Your task to perform on an android device: What does the iPhone 8 look like? Image 0: 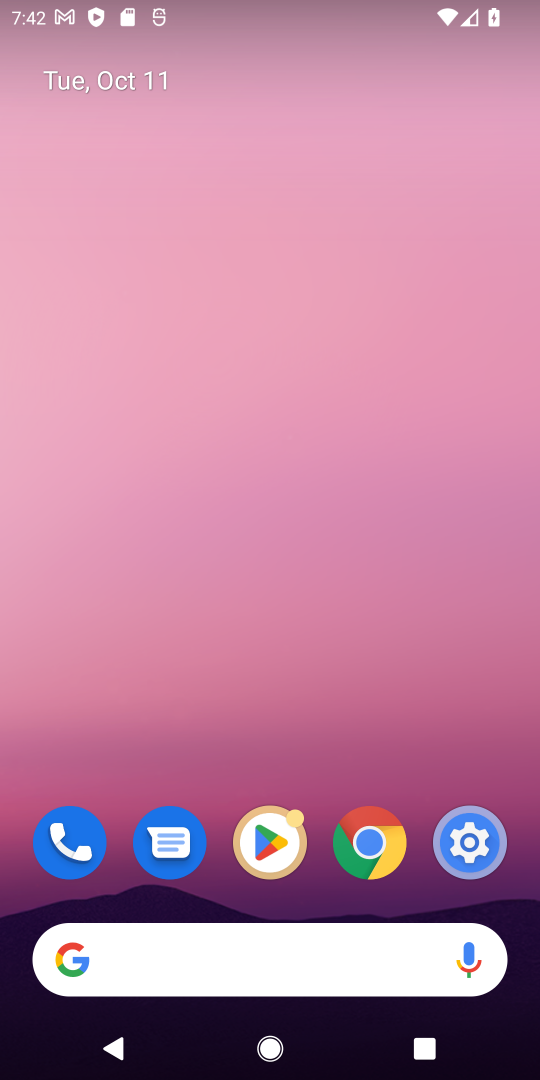
Step 0: click (387, 840)
Your task to perform on an android device: What does the iPhone 8 look like? Image 1: 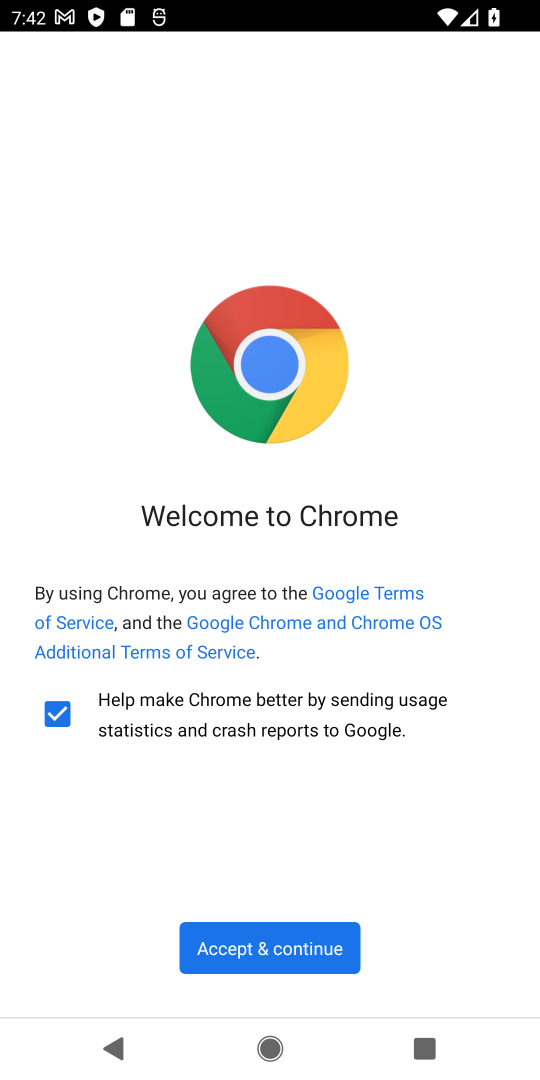
Step 1: click (332, 941)
Your task to perform on an android device: What does the iPhone 8 look like? Image 2: 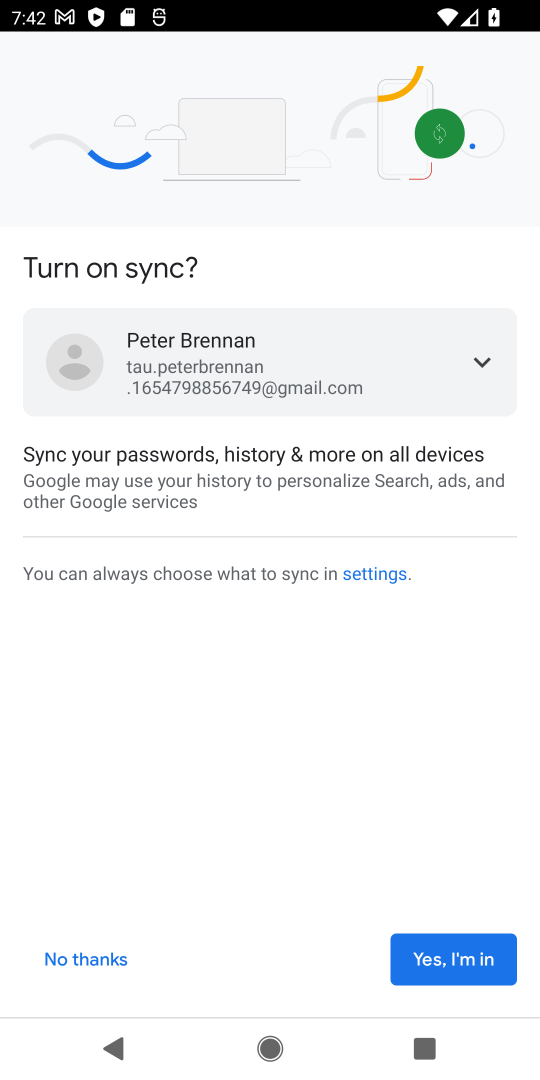
Step 2: click (463, 949)
Your task to perform on an android device: What does the iPhone 8 look like? Image 3: 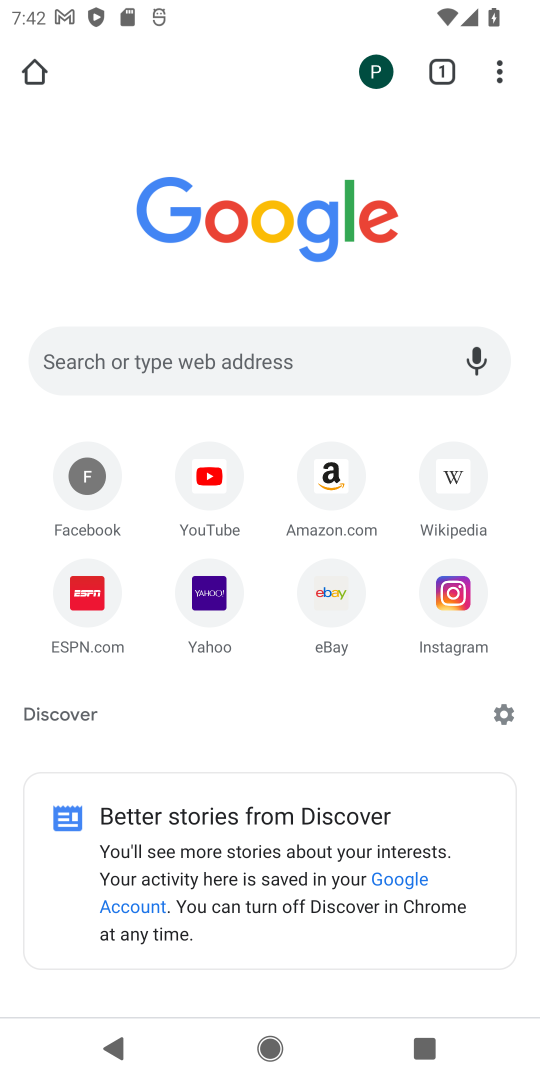
Step 3: click (192, 348)
Your task to perform on an android device: What does the iPhone 8 look like? Image 4: 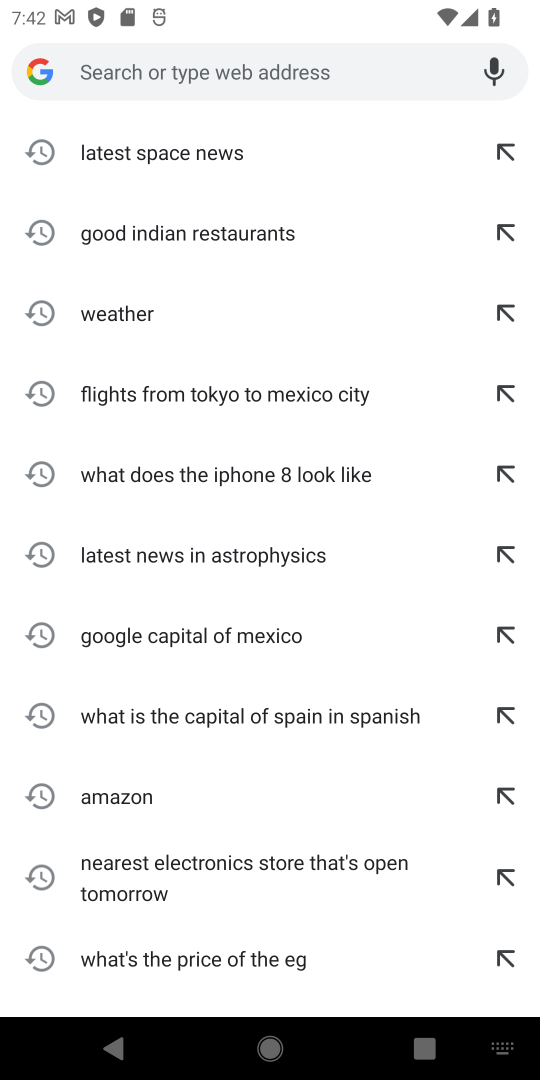
Step 4: type "what does the iphone 8 look like "
Your task to perform on an android device: What does the iPhone 8 look like? Image 5: 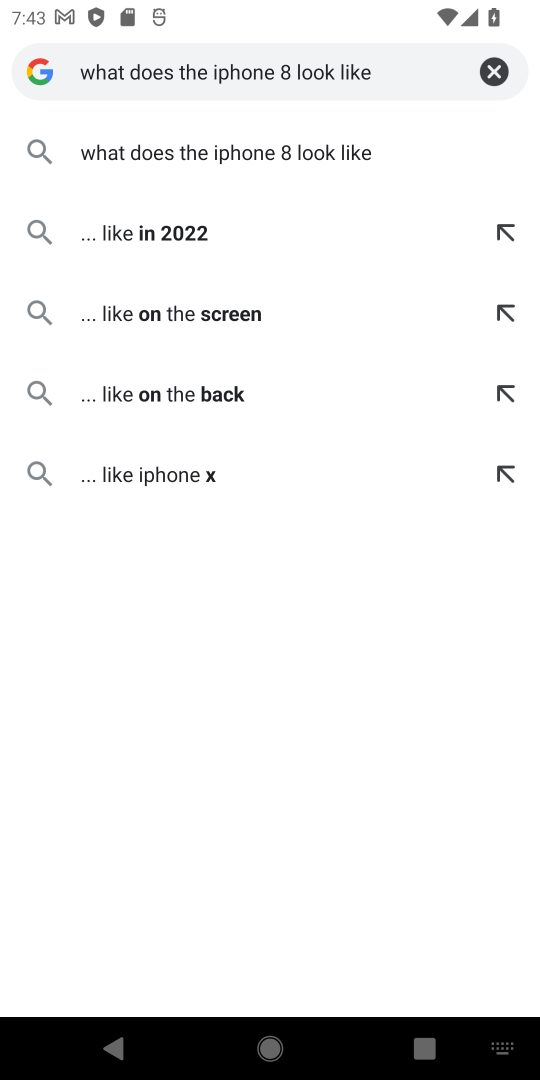
Step 5: click (236, 154)
Your task to perform on an android device: What does the iPhone 8 look like? Image 6: 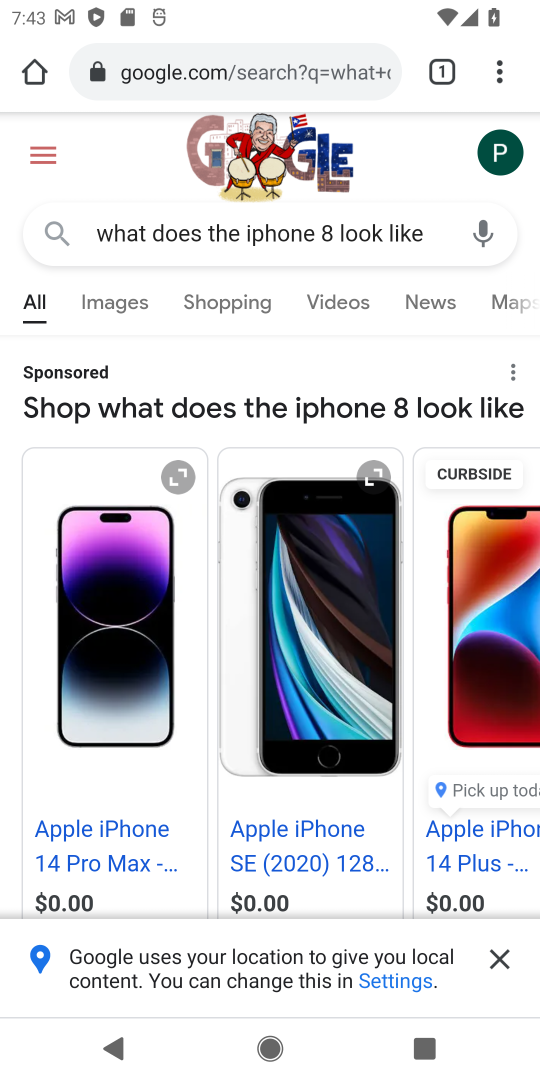
Step 6: click (488, 952)
Your task to perform on an android device: What does the iPhone 8 look like? Image 7: 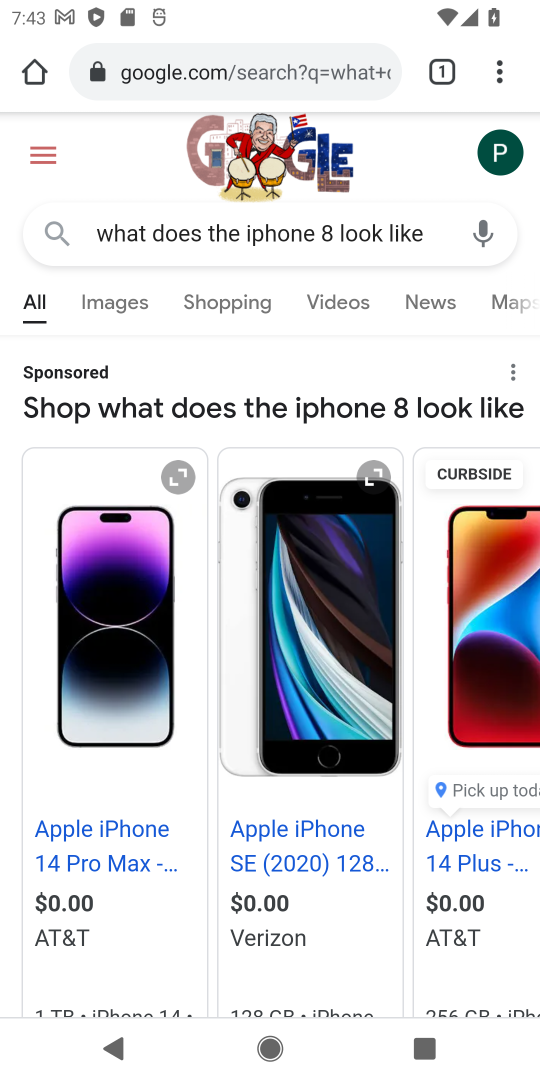
Step 7: drag from (107, 911) to (181, 467)
Your task to perform on an android device: What does the iPhone 8 look like? Image 8: 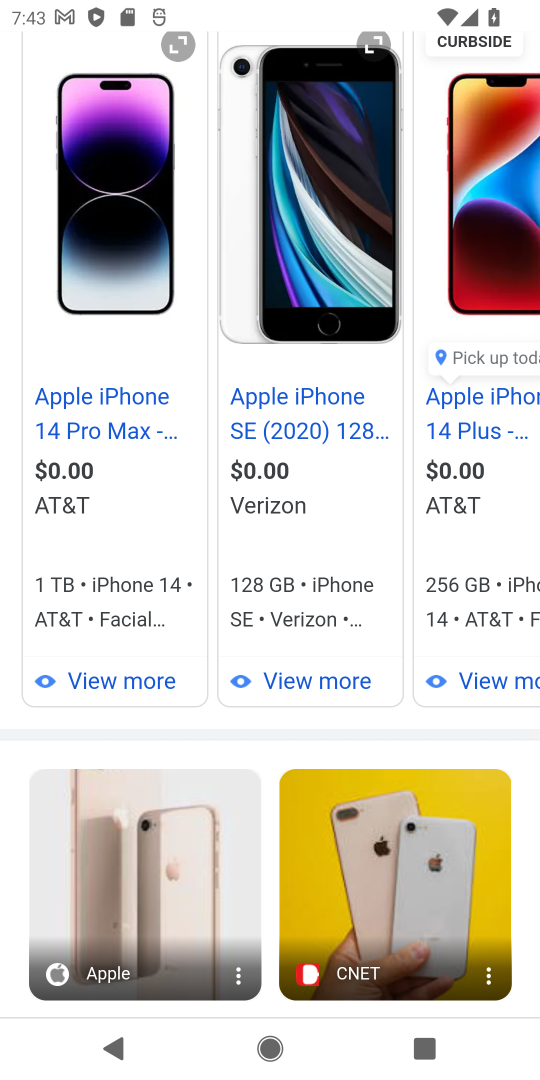
Step 8: drag from (126, 729) to (257, 333)
Your task to perform on an android device: What does the iPhone 8 look like? Image 9: 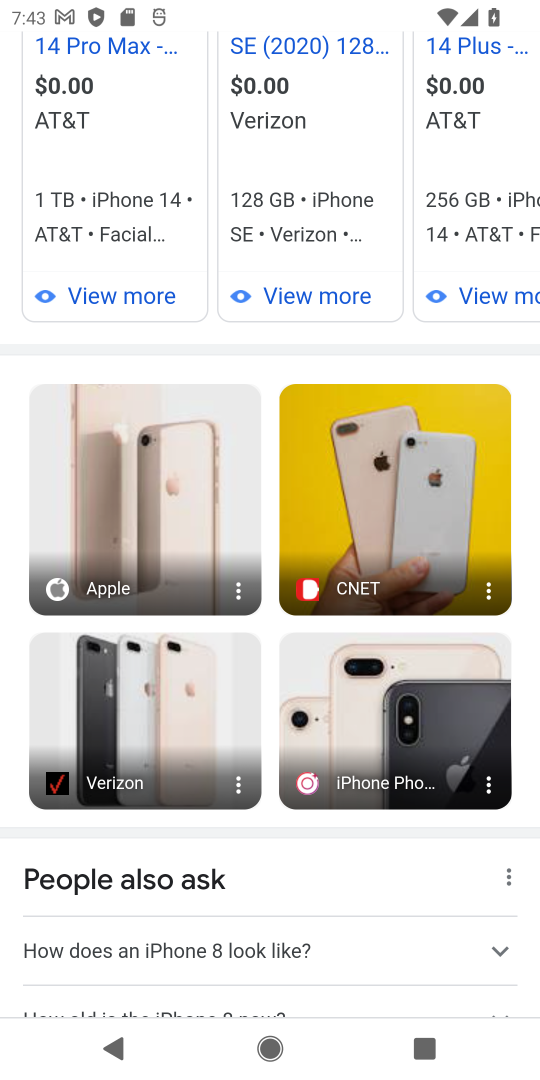
Step 9: drag from (355, 717) to (418, 383)
Your task to perform on an android device: What does the iPhone 8 look like? Image 10: 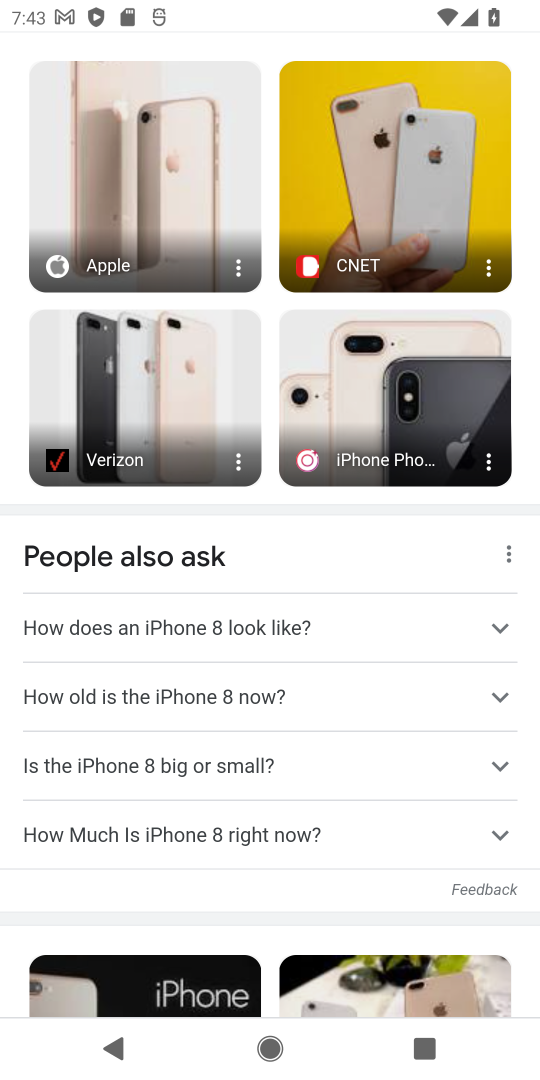
Step 10: click (224, 633)
Your task to perform on an android device: What does the iPhone 8 look like? Image 11: 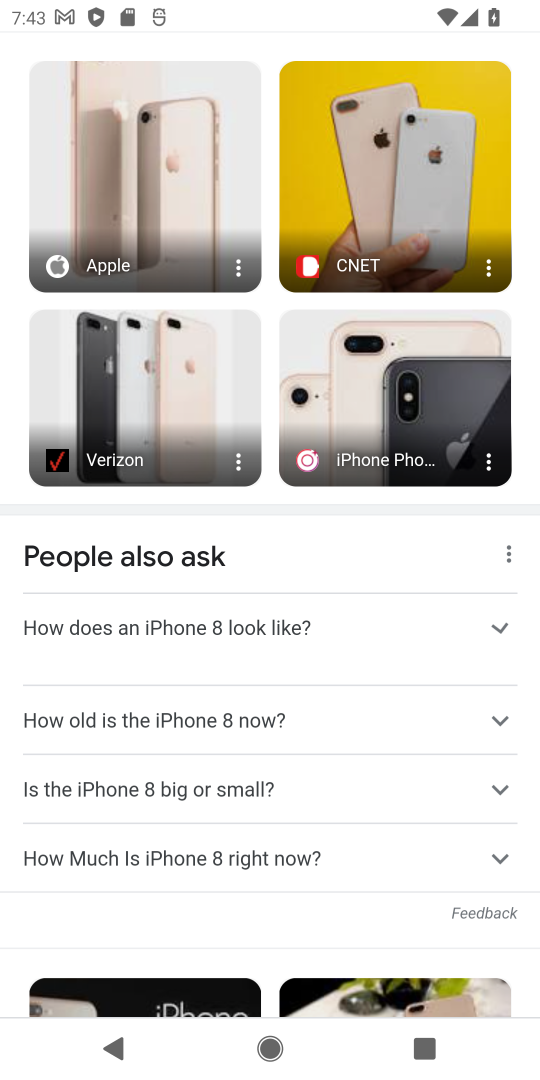
Step 11: click (184, 630)
Your task to perform on an android device: What does the iPhone 8 look like? Image 12: 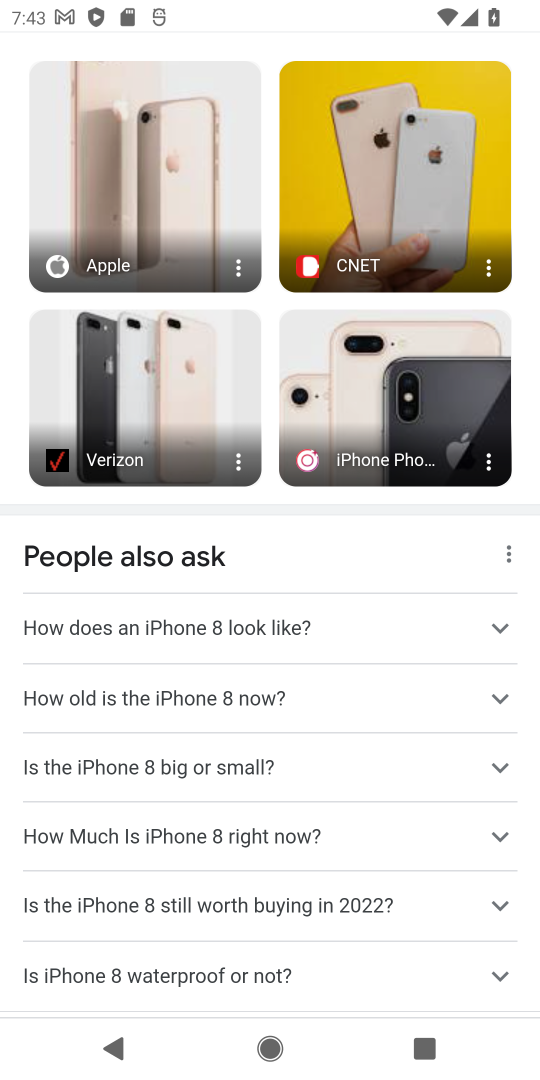
Step 12: drag from (201, 801) to (240, 177)
Your task to perform on an android device: What does the iPhone 8 look like? Image 13: 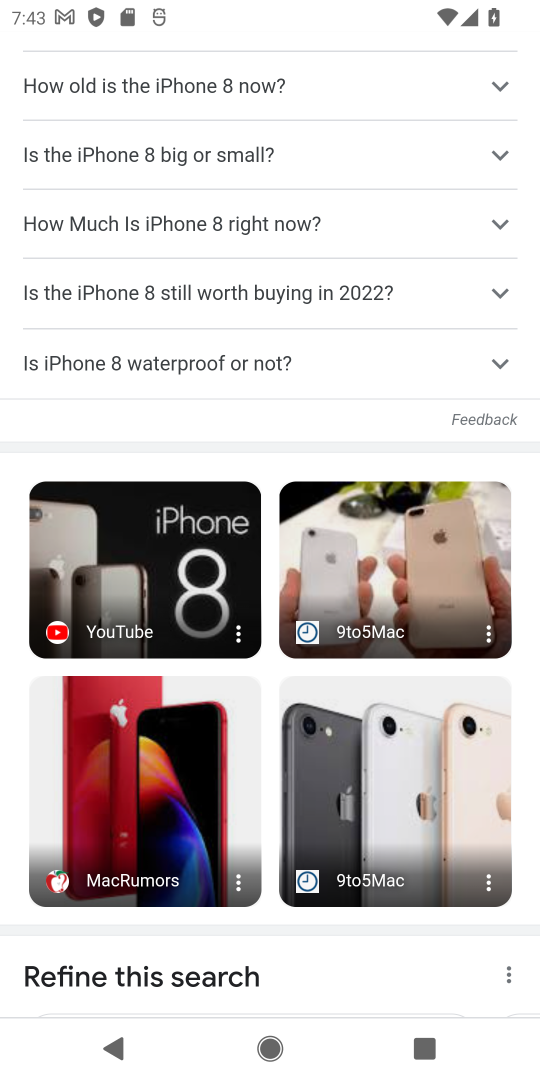
Step 13: drag from (136, 740) to (204, 388)
Your task to perform on an android device: What does the iPhone 8 look like? Image 14: 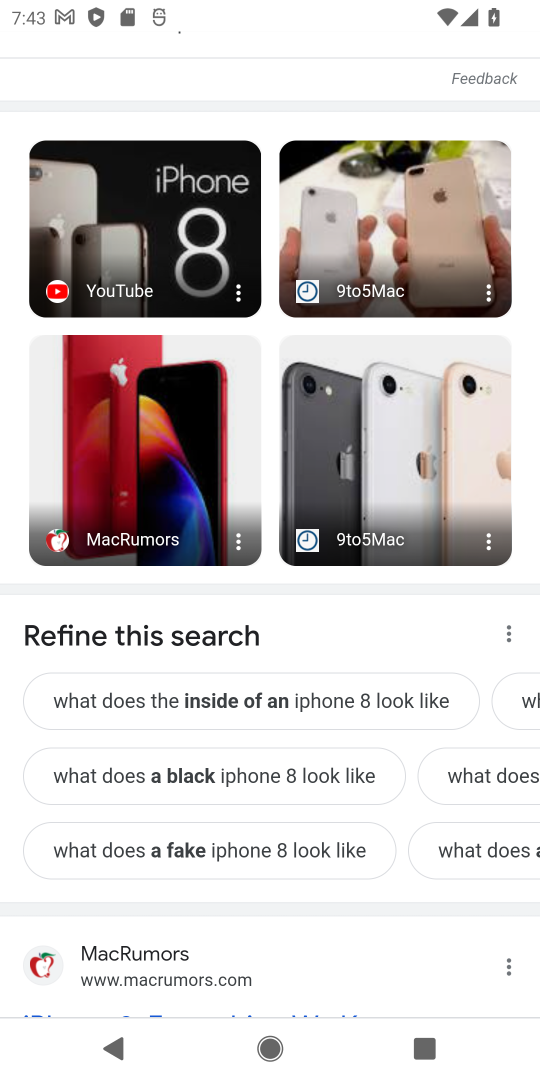
Step 14: drag from (113, 842) to (194, 466)
Your task to perform on an android device: What does the iPhone 8 look like? Image 15: 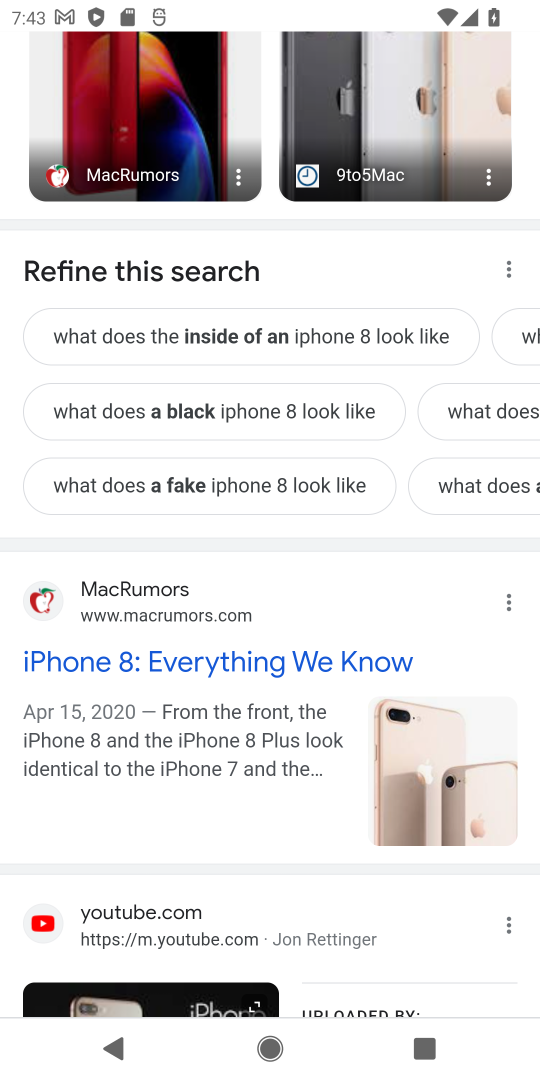
Step 15: drag from (114, 779) to (309, 76)
Your task to perform on an android device: What does the iPhone 8 look like? Image 16: 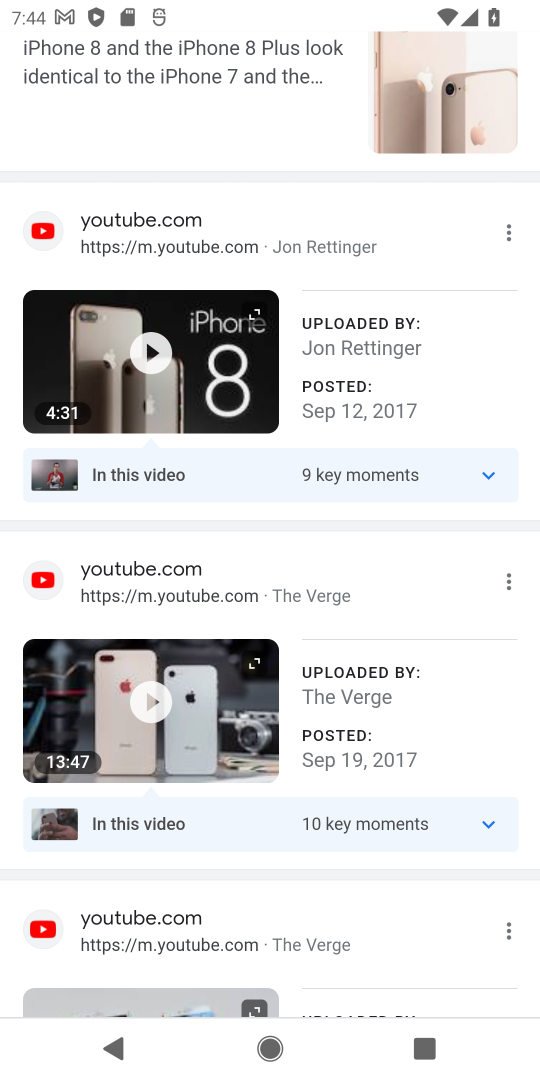
Step 16: drag from (444, 784) to (477, 329)
Your task to perform on an android device: What does the iPhone 8 look like? Image 17: 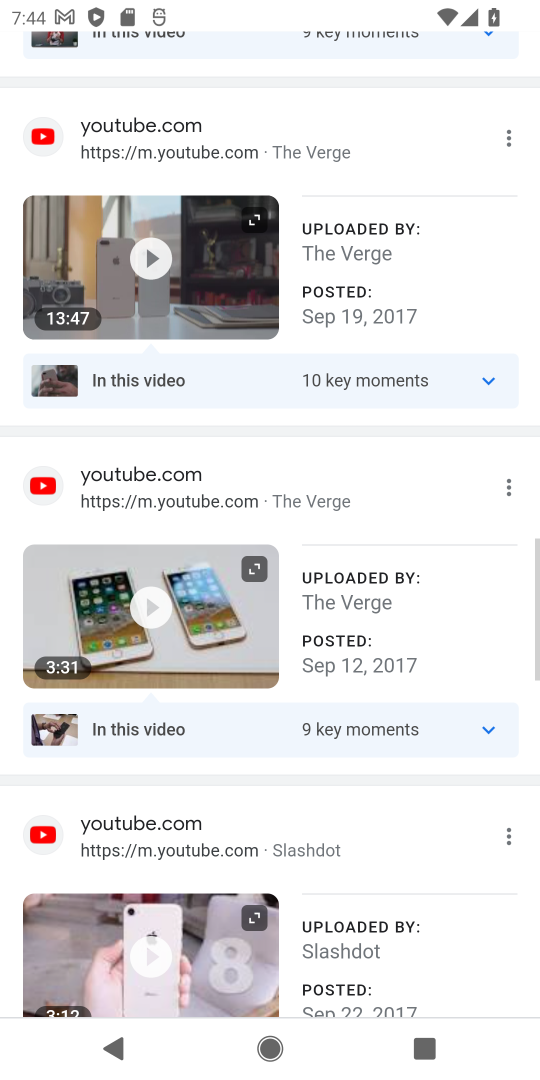
Step 17: drag from (417, 772) to (456, 390)
Your task to perform on an android device: What does the iPhone 8 look like? Image 18: 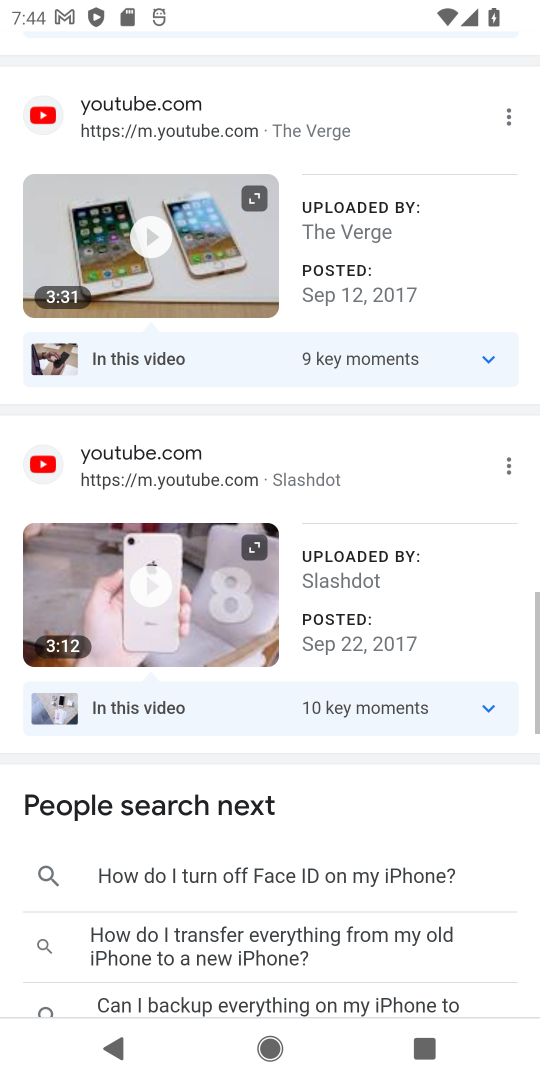
Step 18: drag from (344, 768) to (391, 182)
Your task to perform on an android device: What does the iPhone 8 look like? Image 19: 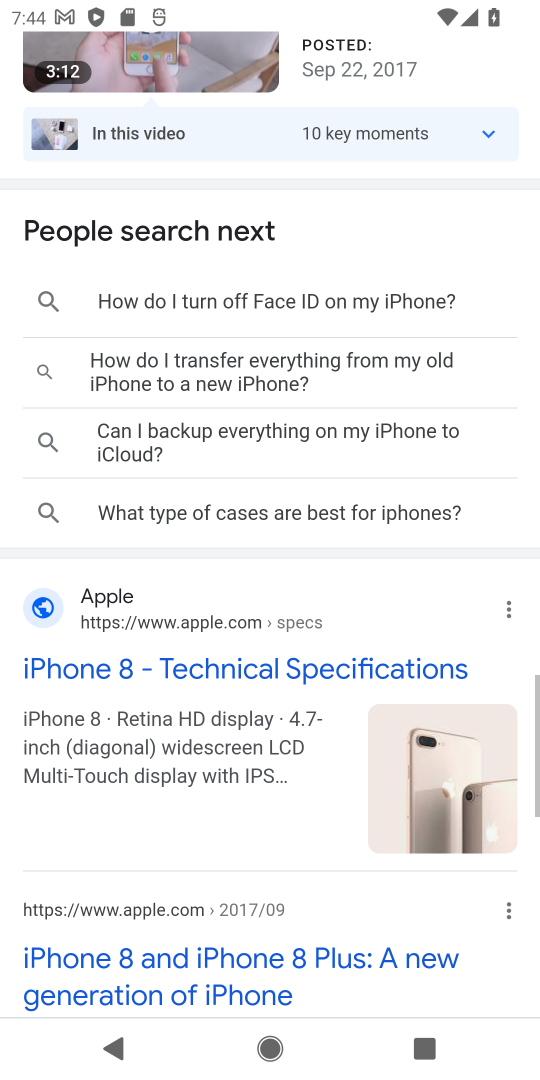
Step 19: drag from (349, 773) to (335, 252)
Your task to perform on an android device: What does the iPhone 8 look like? Image 20: 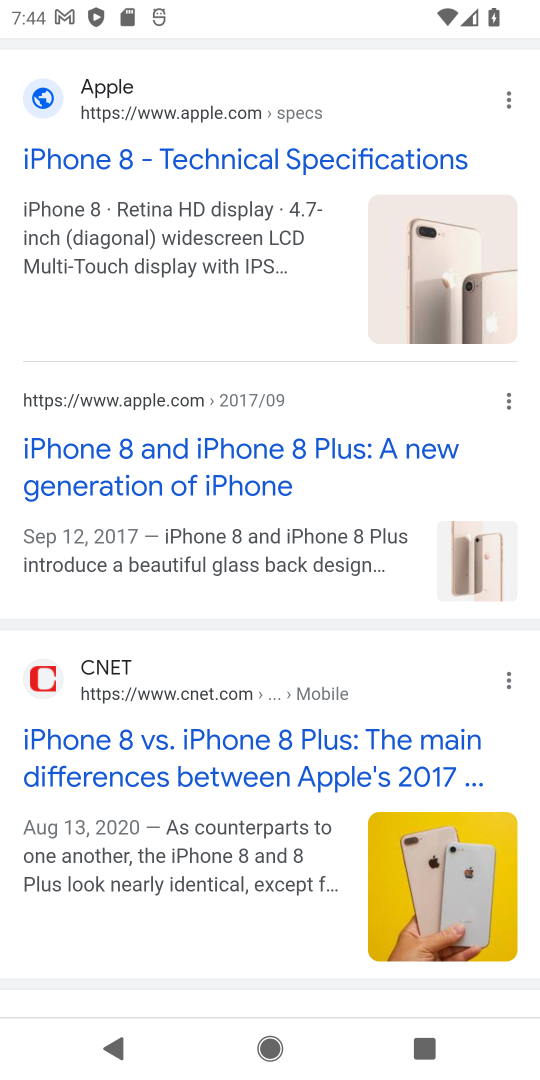
Step 20: drag from (106, 709) to (102, 225)
Your task to perform on an android device: What does the iPhone 8 look like? Image 21: 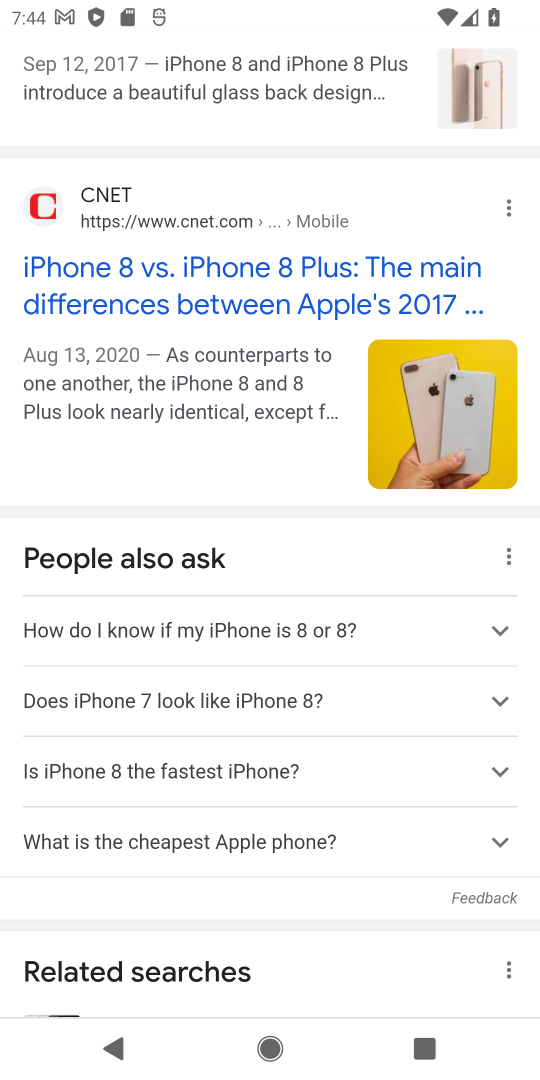
Step 21: drag from (202, 715) to (181, 274)
Your task to perform on an android device: What does the iPhone 8 look like? Image 22: 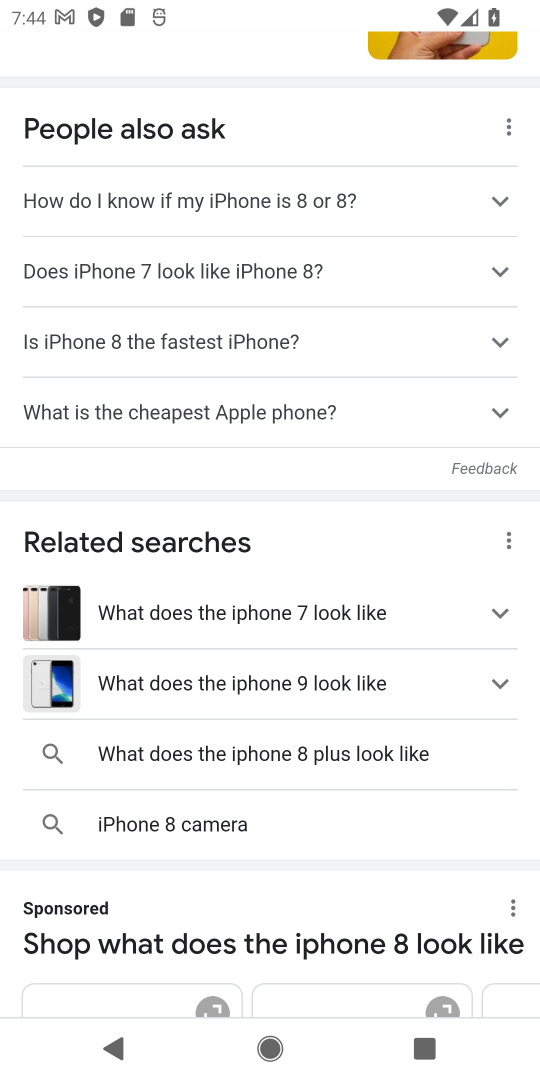
Step 22: drag from (234, 695) to (304, 274)
Your task to perform on an android device: What does the iPhone 8 look like? Image 23: 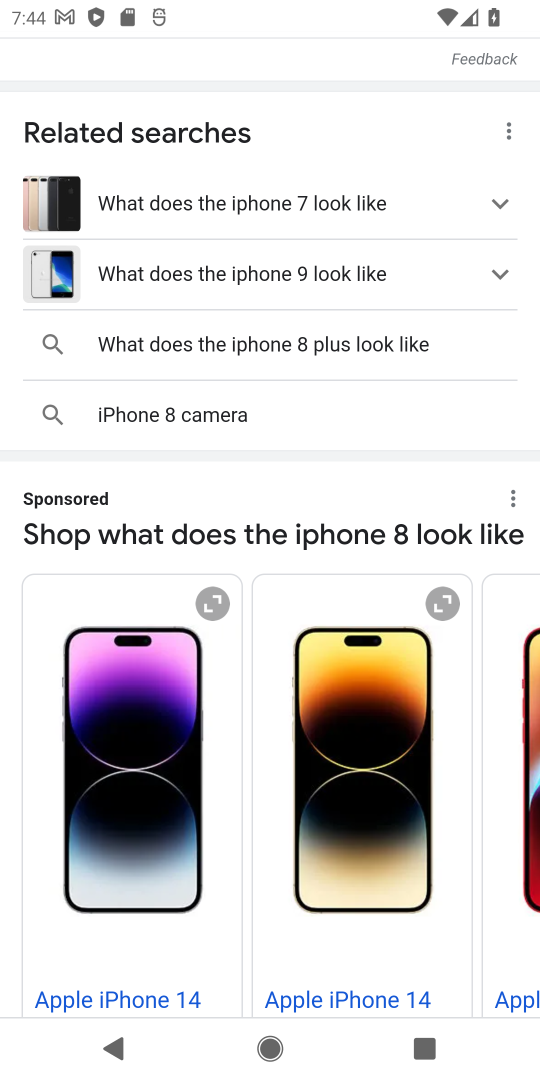
Step 23: drag from (134, 782) to (164, 312)
Your task to perform on an android device: What does the iPhone 8 look like? Image 24: 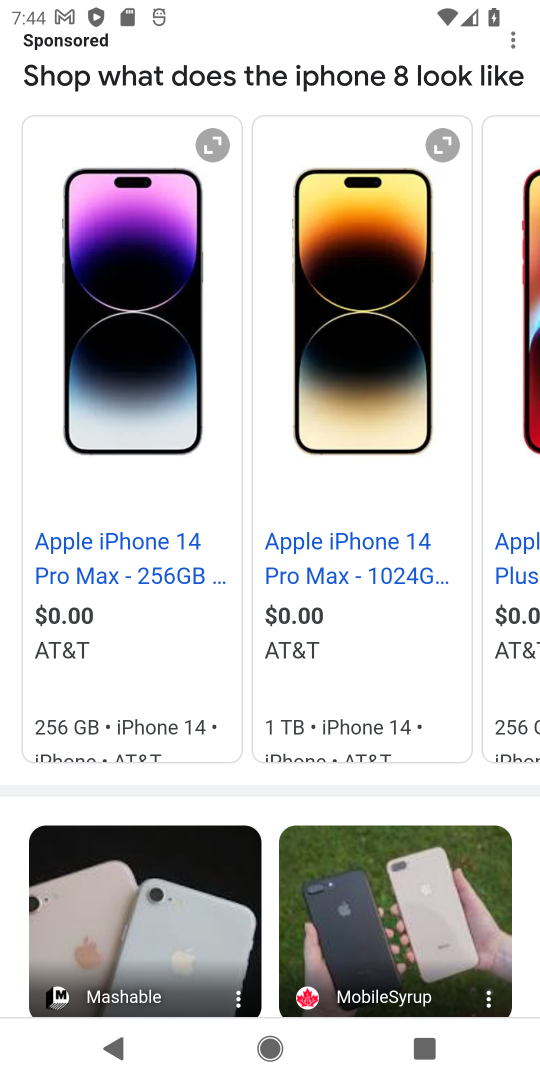
Step 24: drag from (166, 294) to (204, 1033)
Your task to perform on an android device: What does the iPhone 8 look like? Image 25: 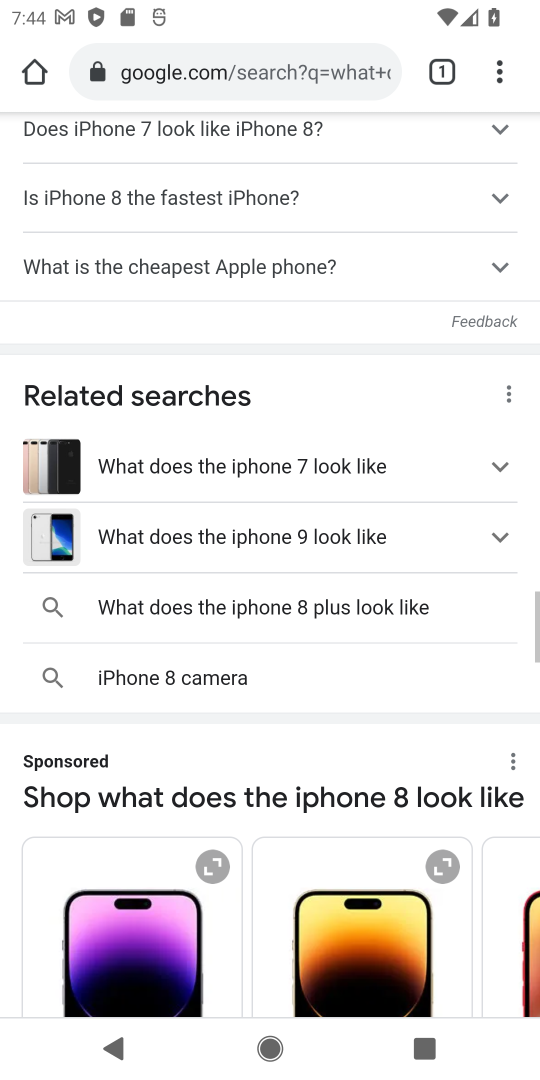
Step 25: drag from (284, 478) to (237, 1042)
Your task to perform on an android device: What does the iPhone 8 look like? Image 26: 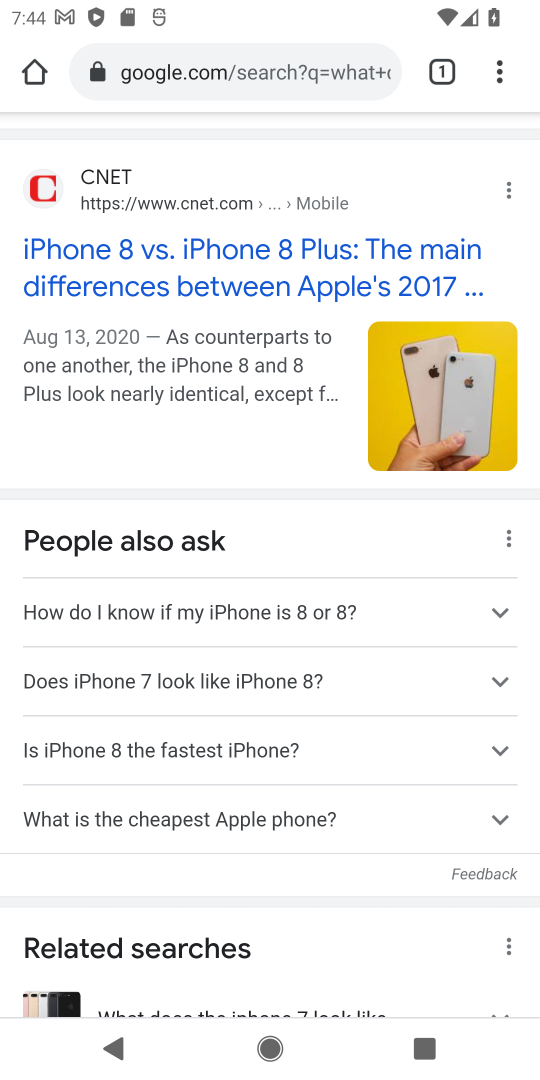
Step 26: drag from (231, 302) to (238, 1033)
Your task to perform on an android device: What does the iPhone 8 look like? Image 27: 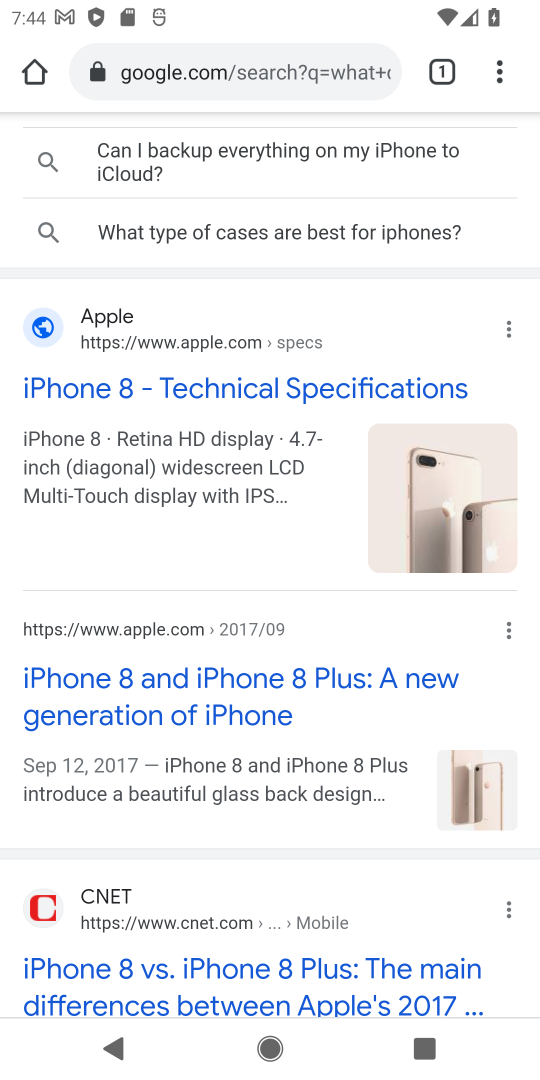
Step 27: drag from (166, 844) to (4, 1073)
Your task to perform on an android device: What does the iPhone 8 look like? Image 28: 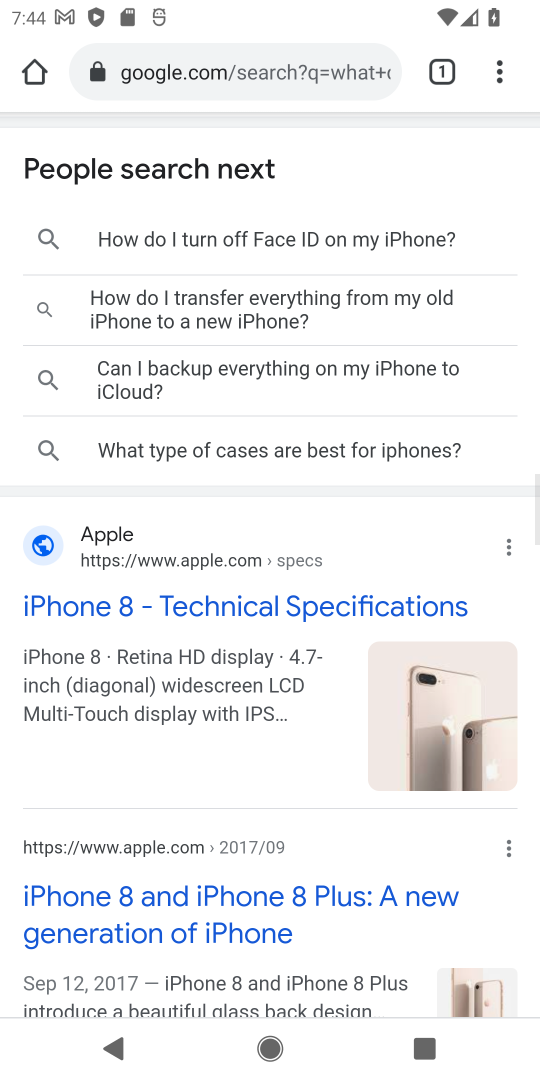
Step 28: drag from (190, 443) to (201, 938)
Your task to perform on an android device: What does the iPhone 8 look like? Image 29: 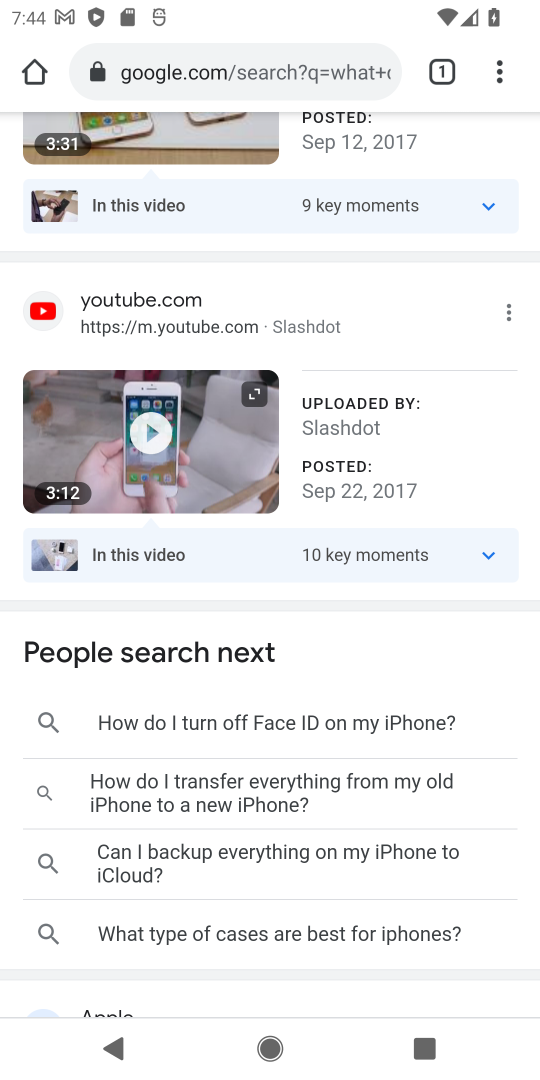
Step 29: drag from (318, 499) to (326, 1059)
Your task to perform on an android device: What does the iPhone 8 look like? Image 30: 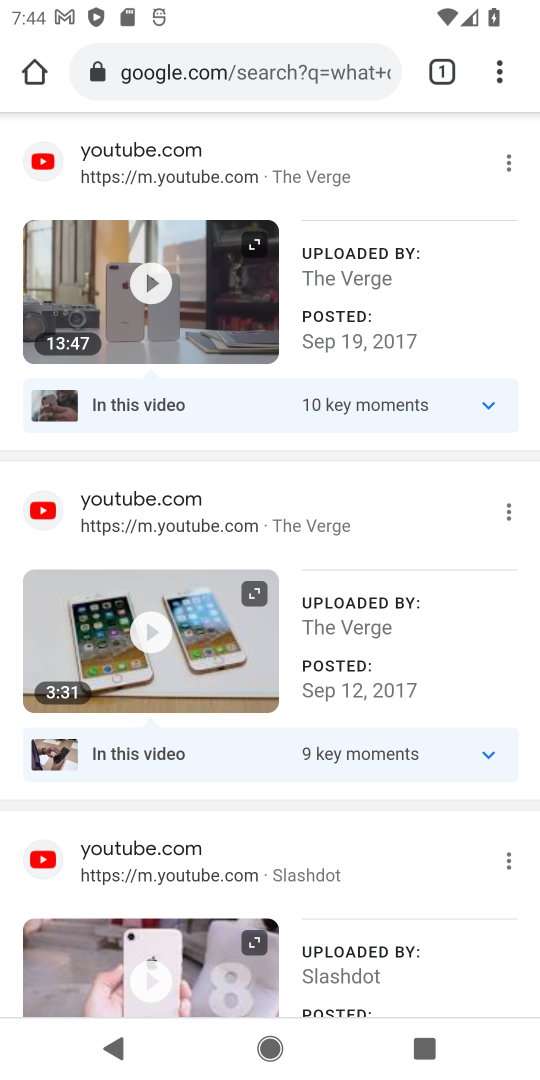
Step 30: drag from (421, 411) to (475, 963)
Your task to perform on an android device: What does the iPhone 8 look like? Image 31: 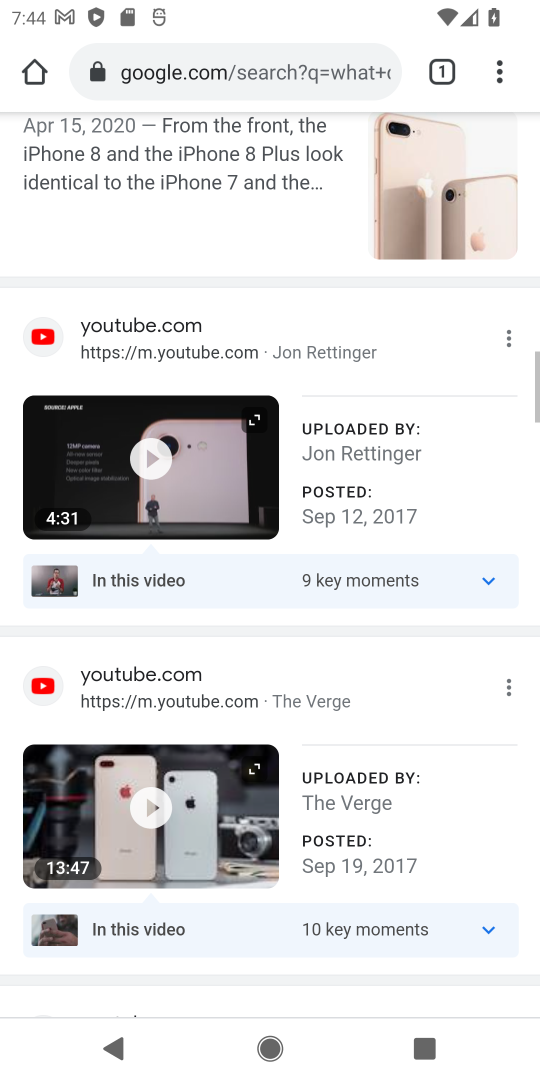
Step 31: drag from (448, 687) to (430, 1012)
Your task to perform on an android device: What does the iPhone 8 look like? Image 32: 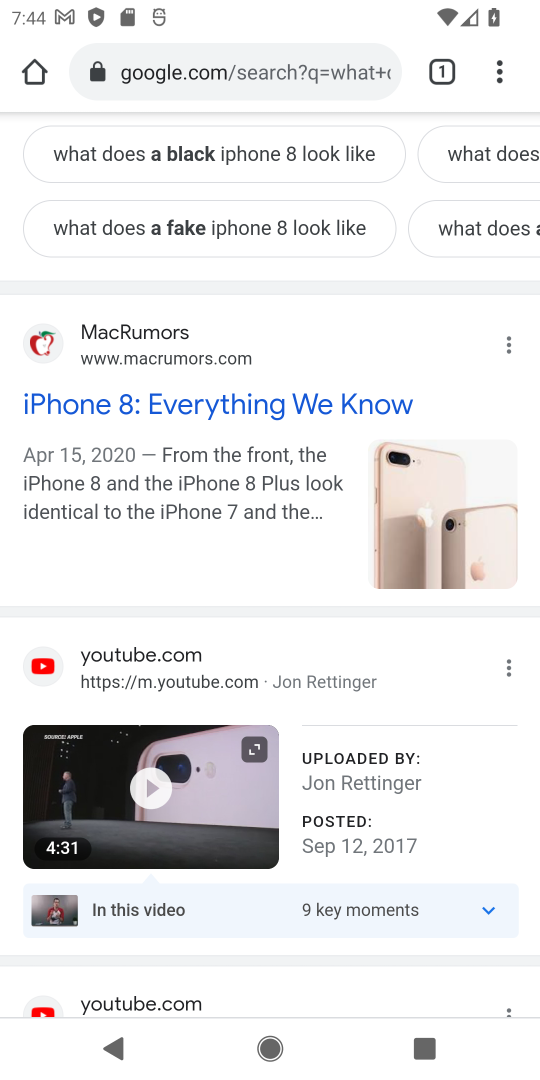
Step 32: click (176, 394)
Your task to perform on an android device: What does the iPhone 8 look like? Image 33: 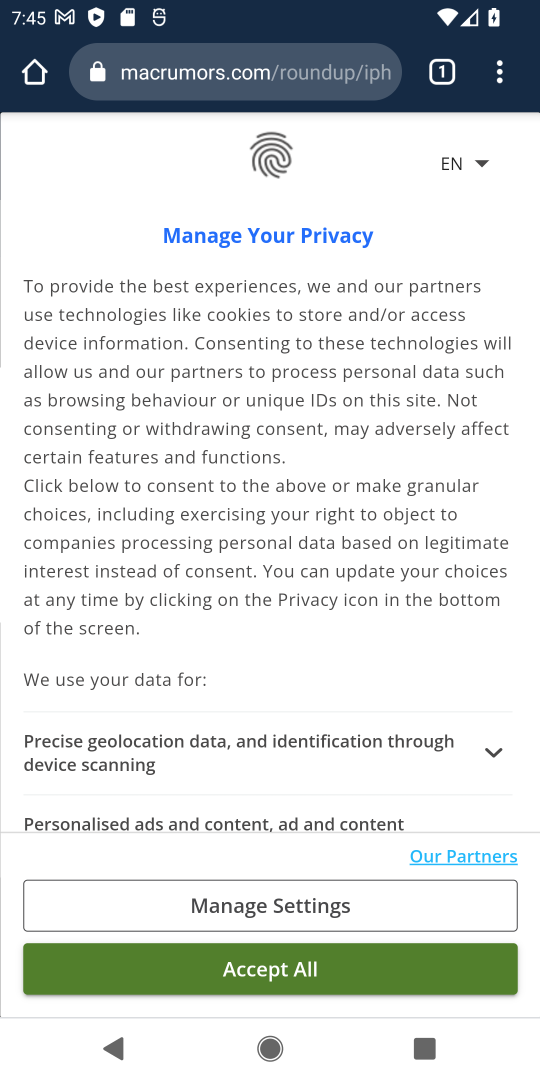
Step 33: click (278, 978)
Your task to perform on an android device: What does the iPhone 8 look like? Image 34: 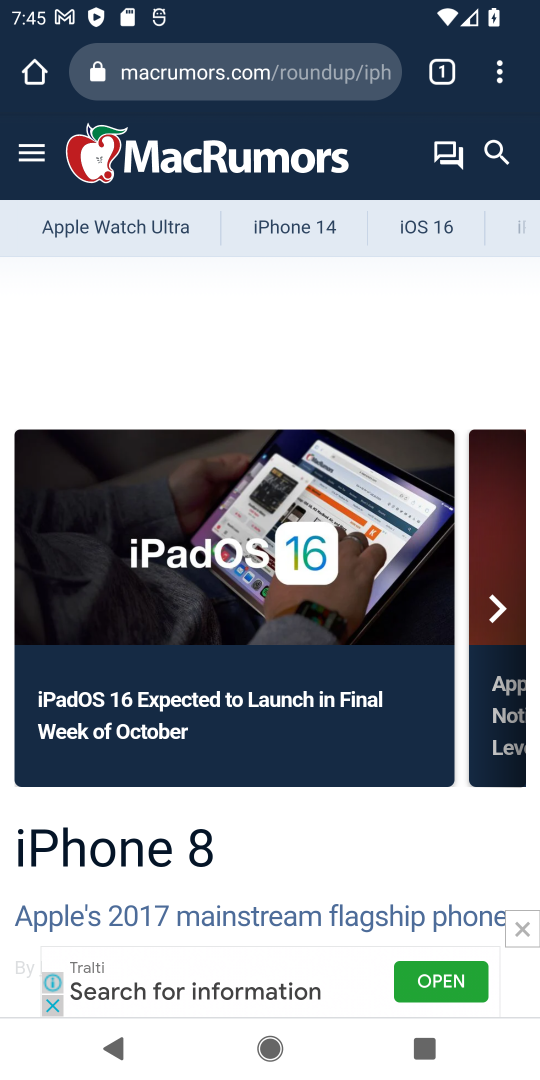
Step 34: task complete